Your task to perform on an android device: change the upload size in google photos Image 0: 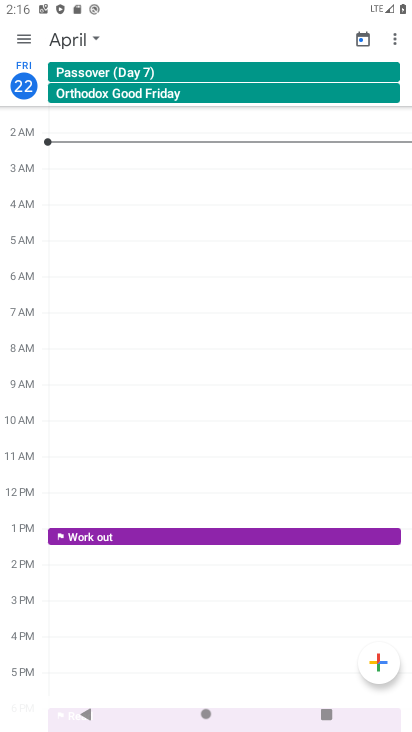
Step 0: press home button
Your task to perform on an android device: change the upload size in google photos Image 1: 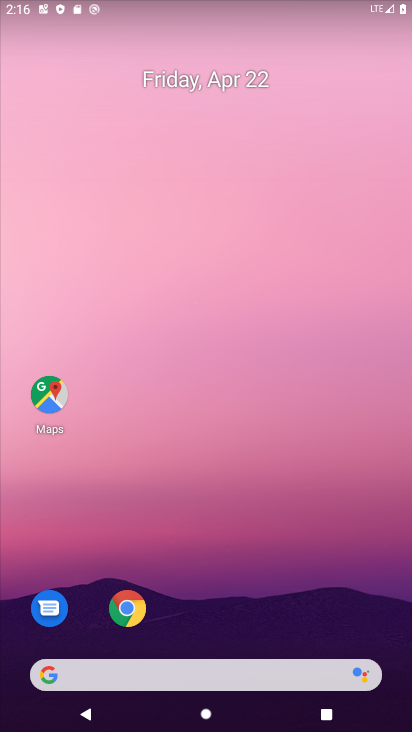
Step 1: drag from (241, 699) to (261, 221)
Your task to perform on an android device: change the upload size in google photos Image 2: 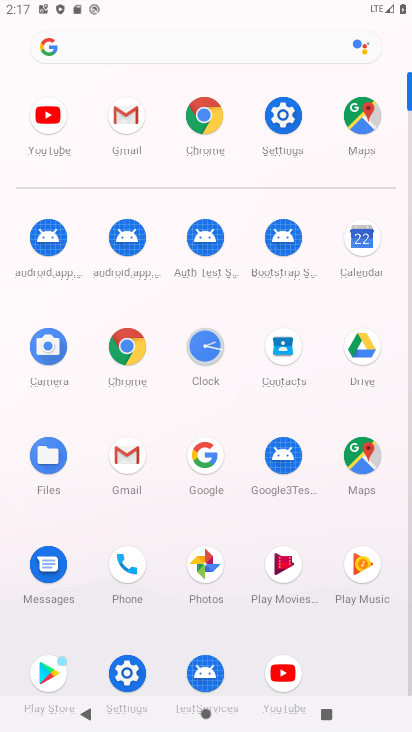
Step 2: click (209, 562)
Your task to perform on an android device: change the upload size in google photos Image 3: 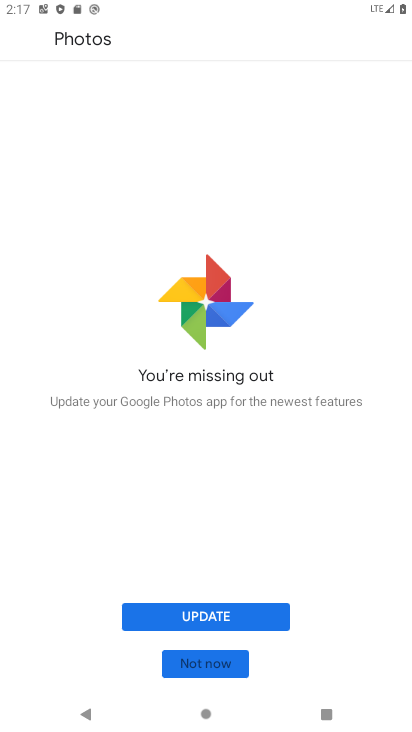
Step 3: click (211, 615)
Your task to perform on an android device: change the upload size in google photos Image 4: 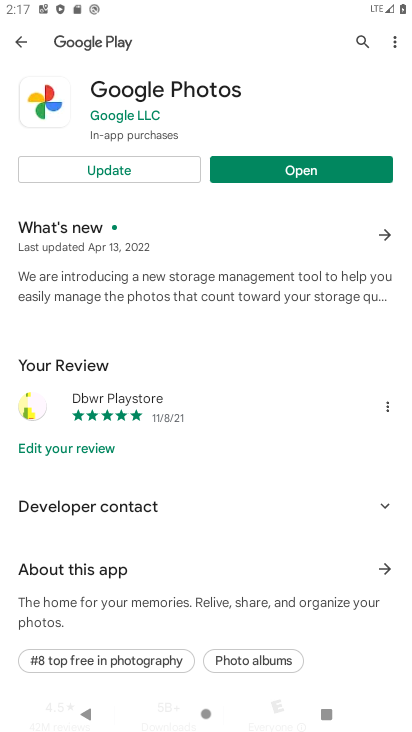
Step 4: click (289, 166)
Your task to perform on an android device: change the upload size in google photos Image 5: 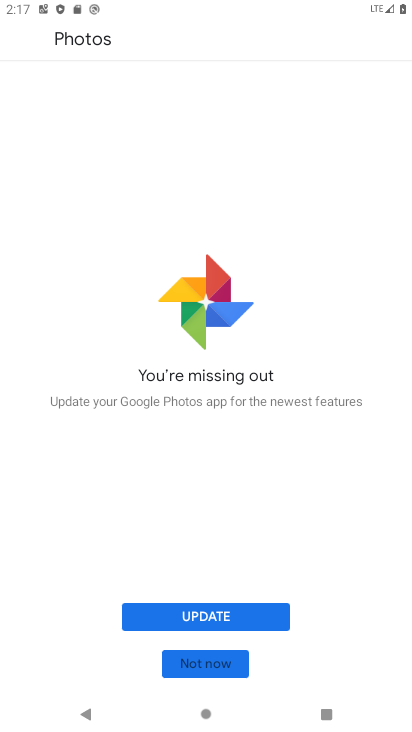
Step 5: click (212, 619)
Your task to perform on an android device: change the upload size in google photos Image 6: 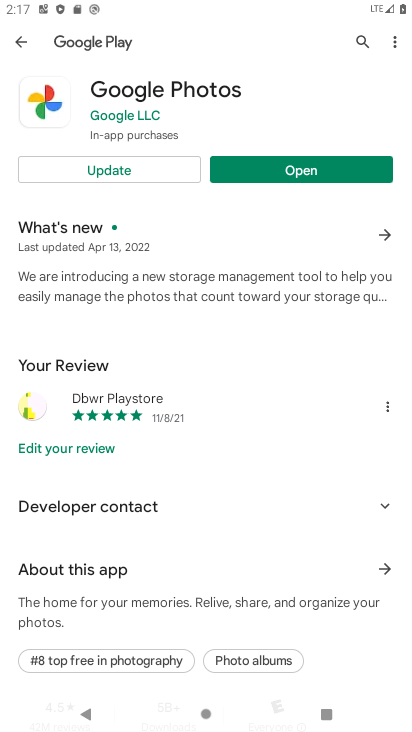
Step 6: click (147, 173)
Your task to perform on an android device: change the upload size in google photos Image 7: 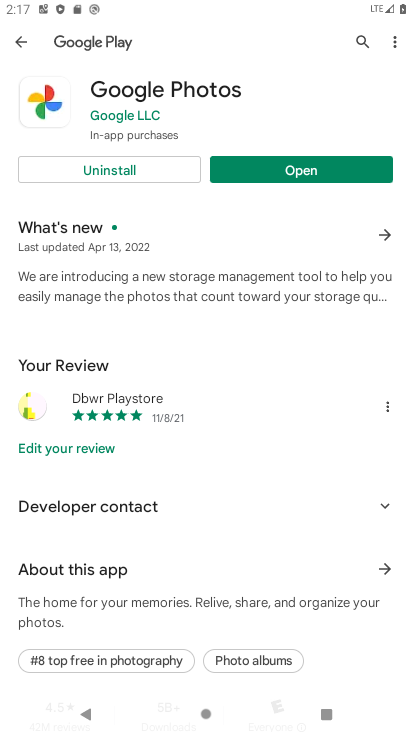
Step 7: click (260, 175)
Your task to perform on an android device: change the upload size in google photos Image 8: 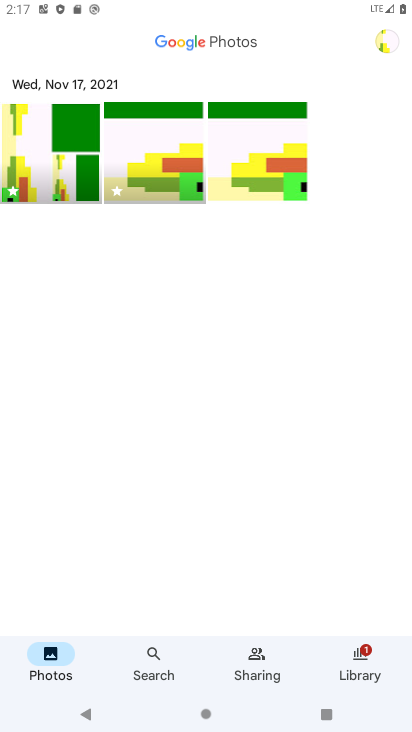
Step 8: click (394, 47)
Your task to perform on an android device: change the upload size in google photos Image 9: 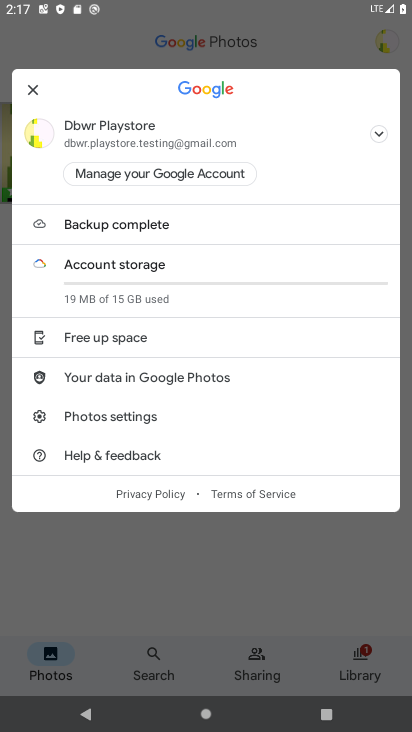
Step 9: click (114, 415)
Your task to perform on an android device: change the upload size in google photos Image 10: 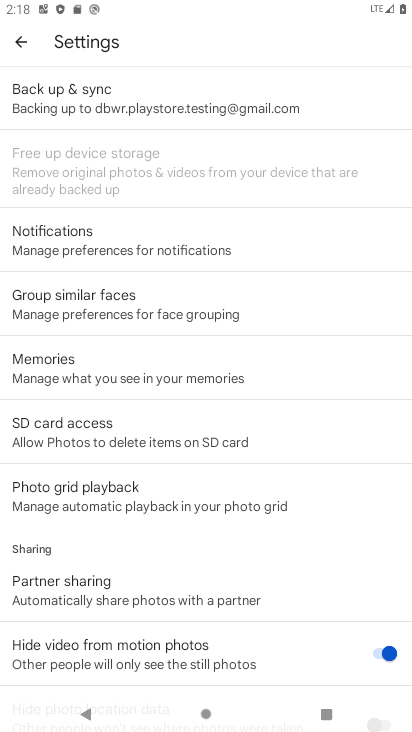
Step 10: click (157, 108)
Your task to perform on an android device: change the upload size in google photos Image 11: 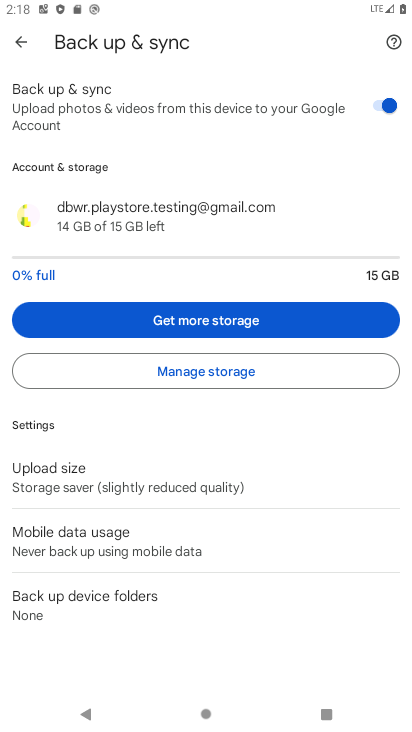
Step 11: click (128, 484)
Your task to perform on an android device: change the upload size in google photos Image 12: 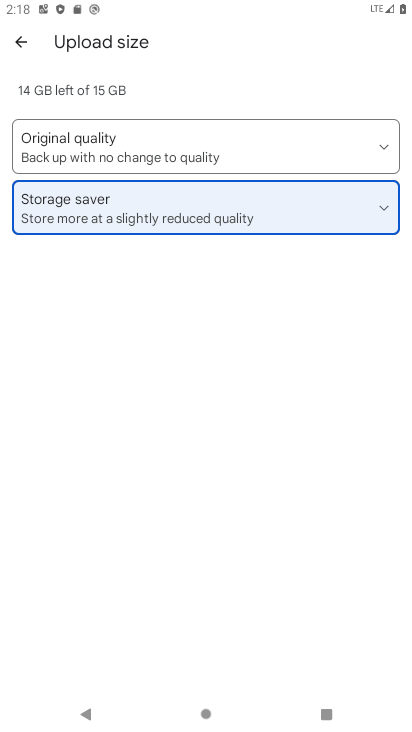
Step 12: task complete